Your task to perform on an android device: Show me popular videos on Youtube Image 0: 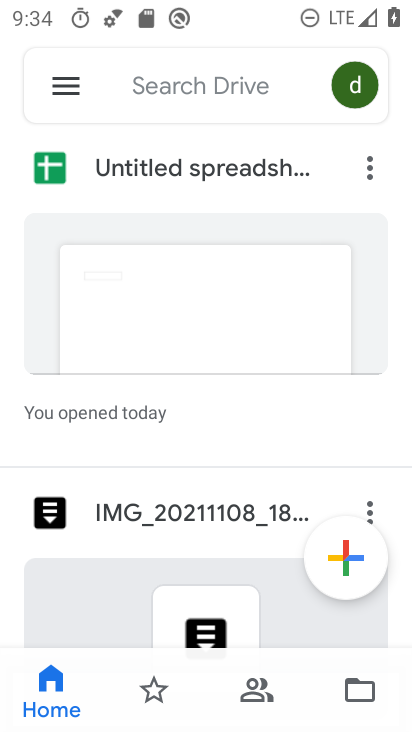
Step 0: press home button
Your task to perform on an android device: Show me popular videos on Youtube Image 1: 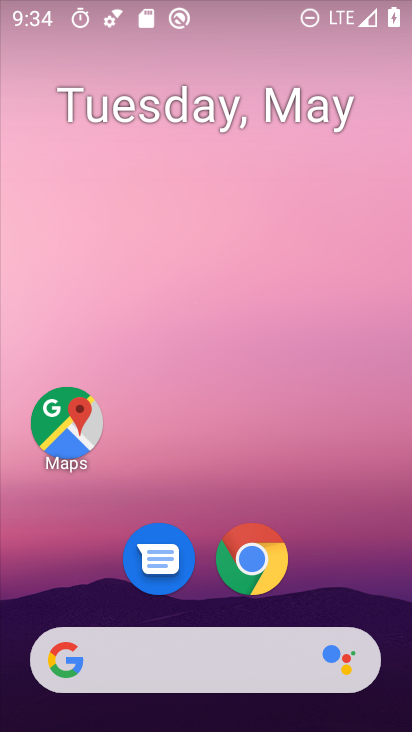
Step 1: drag from (394, 681) to (308, 53)
Your task to perform on an android device: Show me popular videos on Youtube Image 2: 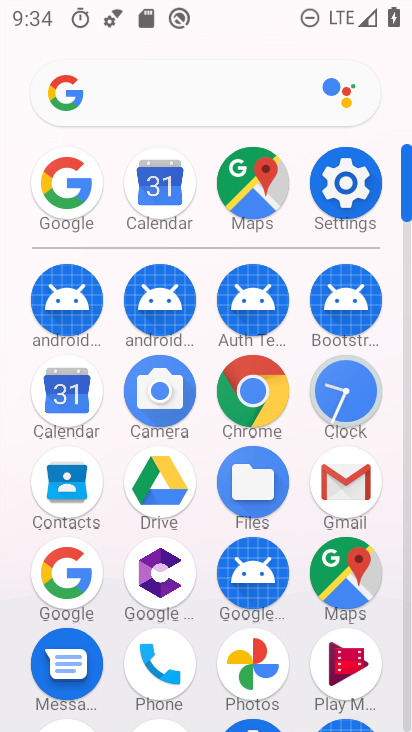
Step 2: drag from (284, 646) to (272, 131)
Your task to perform on an android device: Show me popular videos on Youtube Image 3: 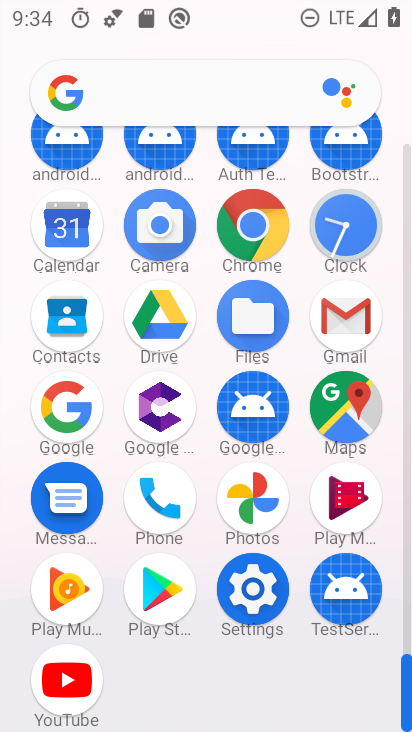
Step 3: click (70, 652)
Your task to perform on an android device: Show me popular videos on Youtube Image 4: 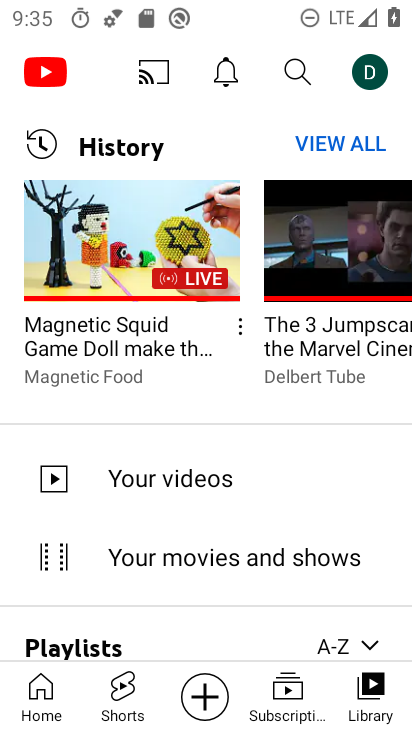
Step 4: task complete